Your task to perform on an android device: toggle show notifications on the lock screen Image 0: 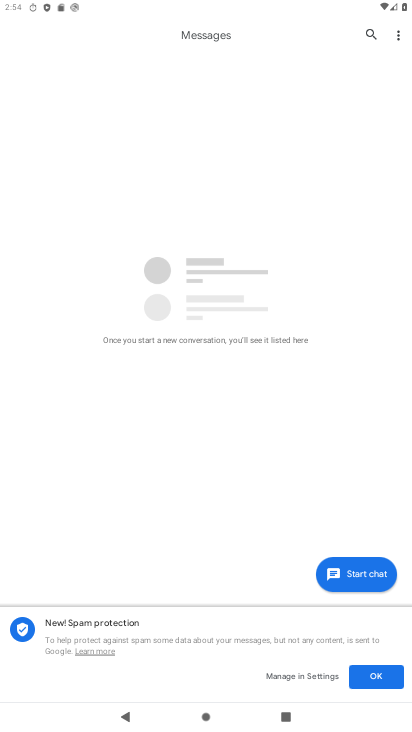
Step 0: press home button
Your task to perform on an android device: toggle show notifications on the lock screen Image 1: 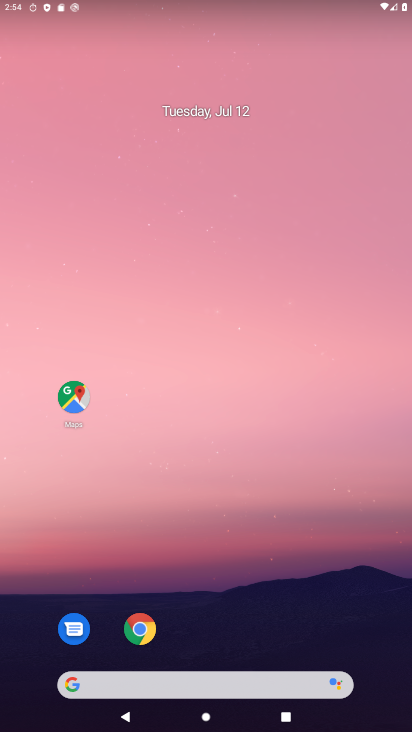
Step 1: drag from (277, 613) to (408, 283)
Your task to perform on an android device: toggle show notifications on the lock screen Image 2: 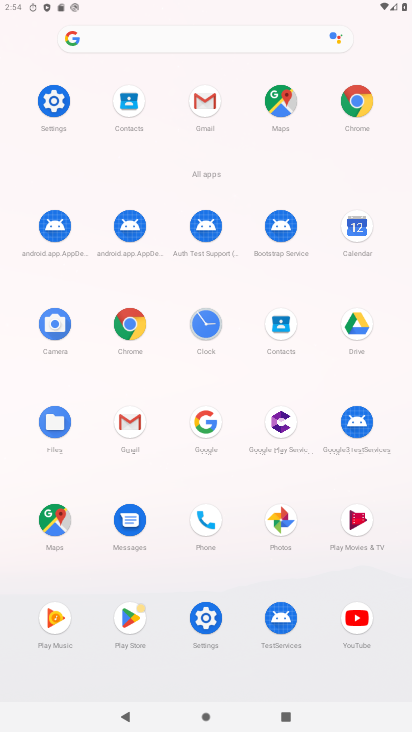
Step 2: click (39, 105)
Your task to perform on an android device: toggle show notifications on the lock screen Image 3: 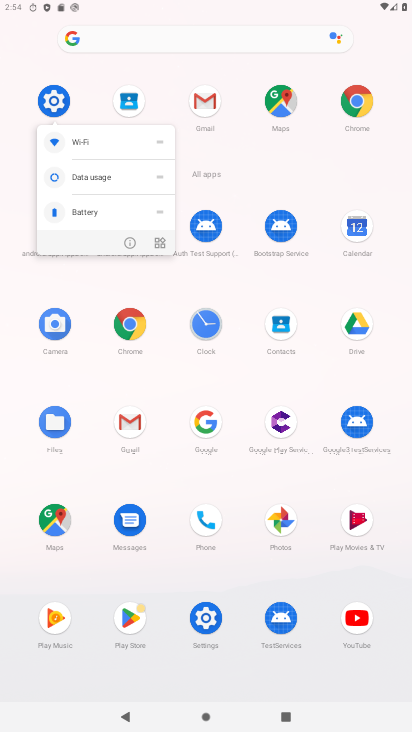
Step 3: click (51, 101)
Your task to perform on an android device: toggle show notifications on the lock screen Image 4: 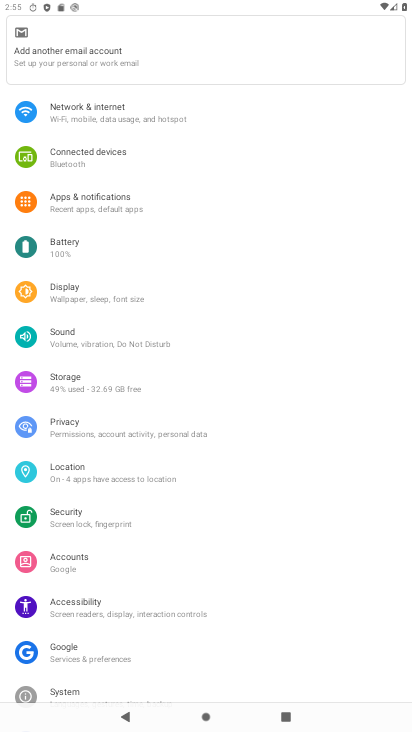
Step 4: click (78, 199)
Your task to perform on an android device: toggle show notifications on the lock screen Image 5: 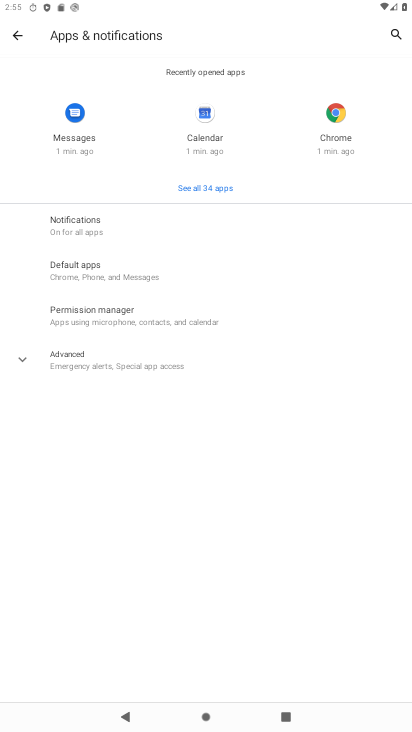
Step 5: click (64, 208)
Your task to perform on an android device: toggle show notifications on the lock screen Image 6: 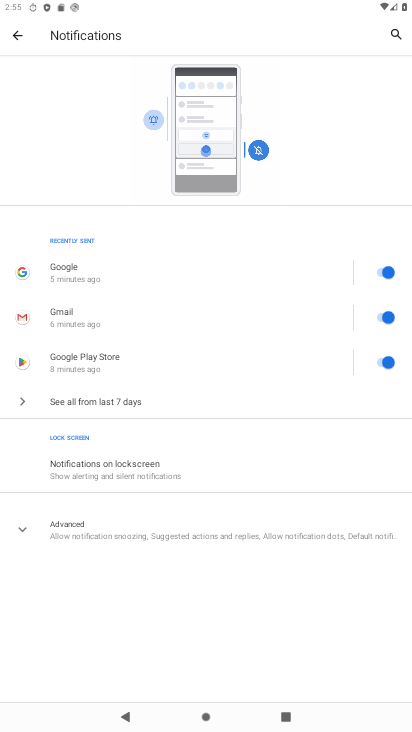
Step 6: click (162, 464)
Your task to perform on an android device: toggle show notifications on the lock screen Image 7: 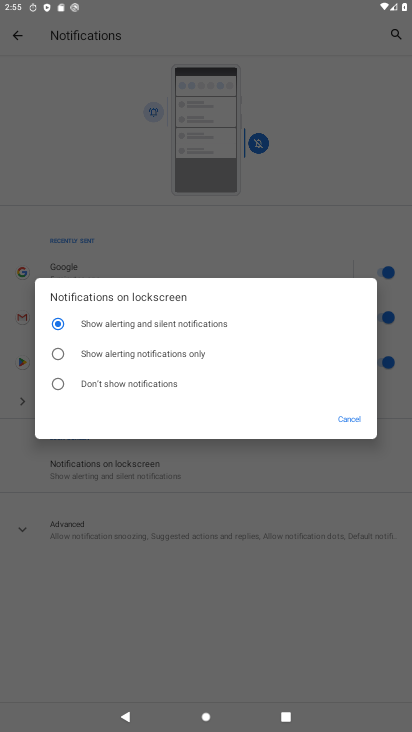
Step 7: click (162, 464)
Your task to perform on an android device: toggle show notifications on the lock screen Image 8: 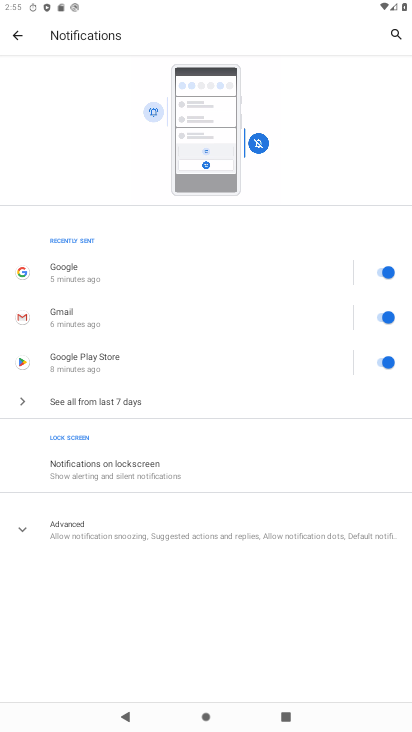
Step 8: click (162, 464)
Your task to perform on an android device: toggle show notifications on the lock screen Image 9: 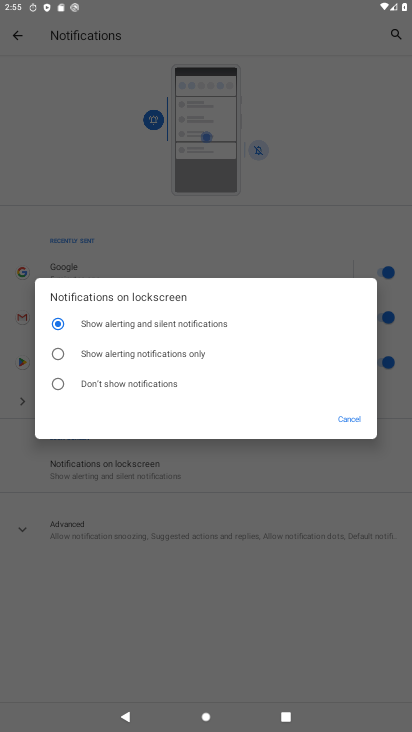
Step 9: click (92, 377)
Your task to perform on an android device: toggle show notifications on the lock screen Image 10: 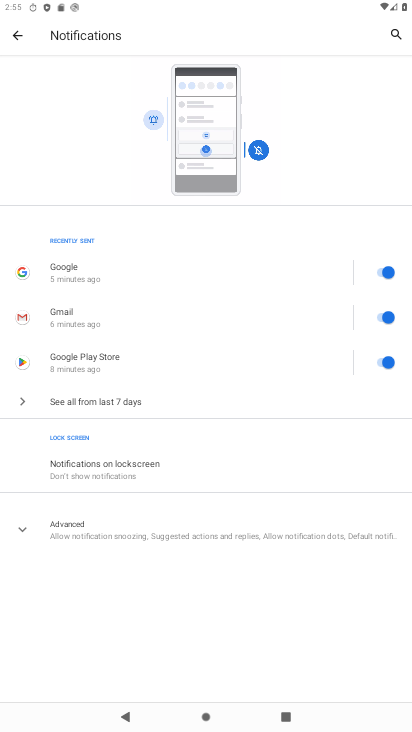
Step 10: task complete